Your task to perform on an android device: open a bookmark in the chrome app Image 0: 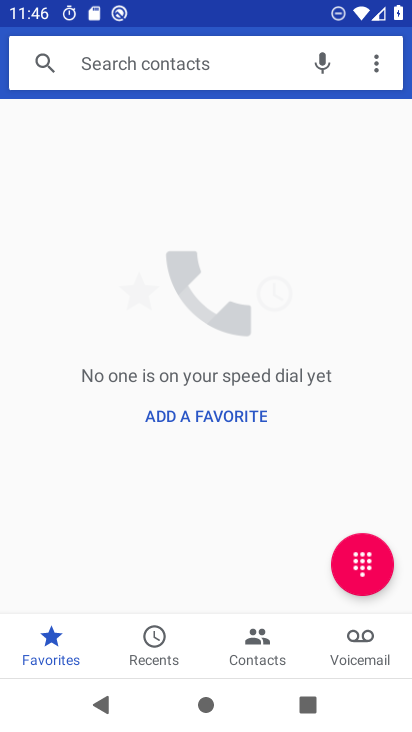
Step 0: press home button
Your task to perform on an android device: open a bookmark in the chrome app Image 1: 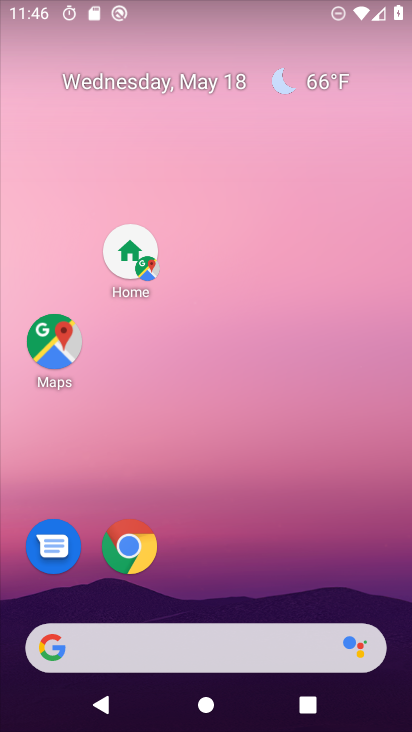
Step 1: click (130, 543)
Your task to perform on an android device: open a bookmark in the chrome app Image 2: 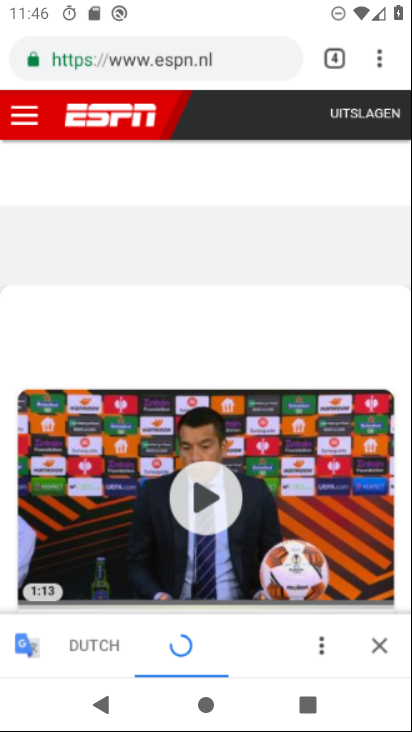
Step 2: click (385, 47)
Your task to perform on an android device: open a bookmark in the chrome app Image 3: 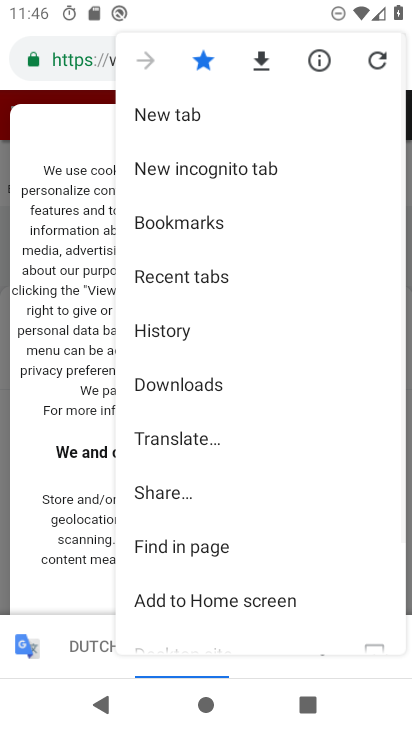
Step 3: click (222, 225)
Your task to perform on an android device: open a bookmark in the chrome app Image 4: 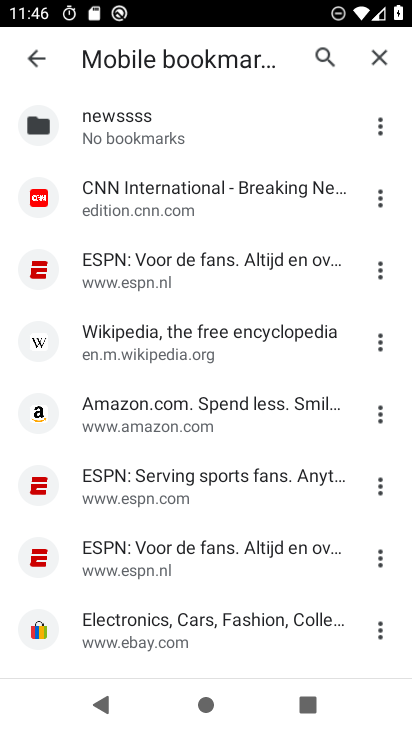
Step 4: click (98, 486)
Your task to perform on an android device: open a bookmark in the chrome app Image 5: 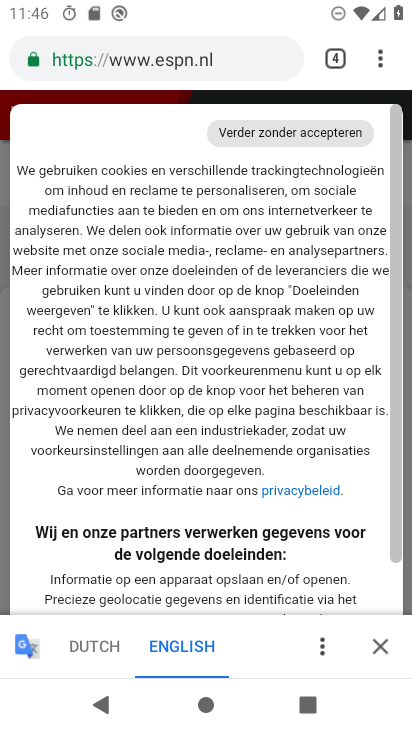
Step 5: task complete